Your task to perform on an android device: change your default location settings in chrome Image 0: 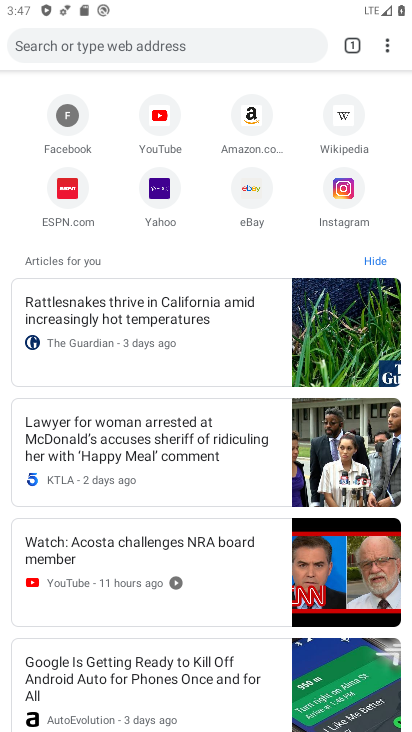
Step 0: click (376, 50)
Your task to perform on an android device: change your default location settings in chrome Image 1: 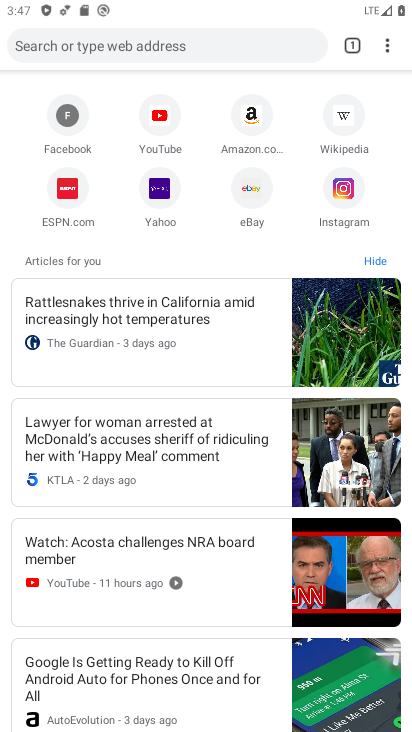
Step 1: click (376, 53)
Your task to perform on an android device: change your default location settings in chrome Image 2: 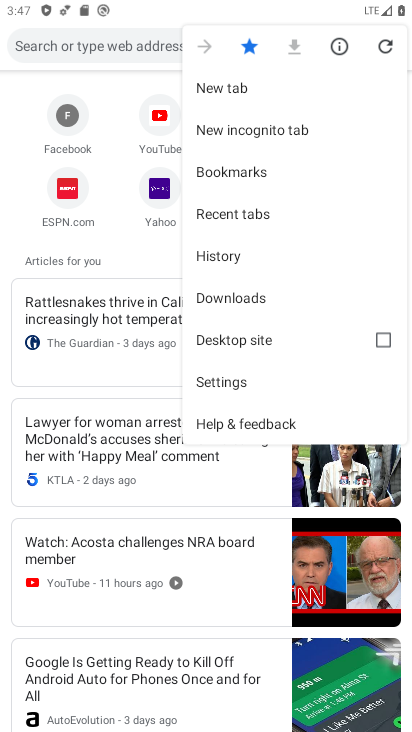
Step 2: click (251, 377)
Your task to perform on an android device: change your default location settings in chrome Image 3: 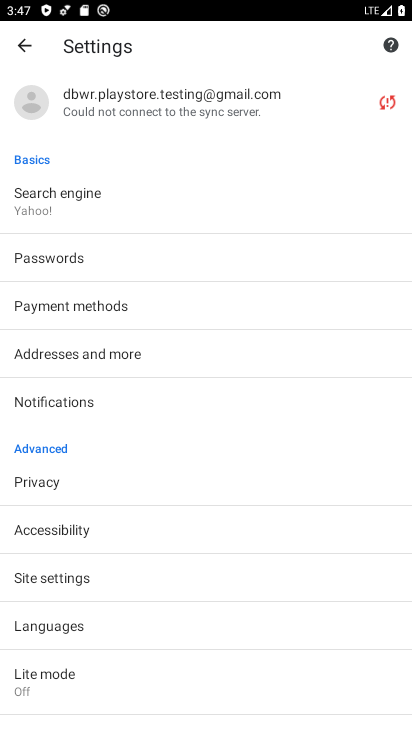
Step 3: click (68, 579)
Your task to perform on an android device: change your default location settings in chrome Image 4: 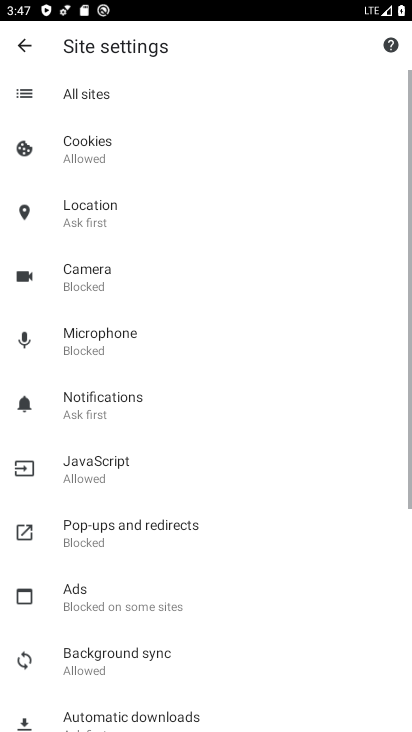
Step 4: click (123, 203)
Your task to perform on an android device: change your default location settings in chrome Image 5: 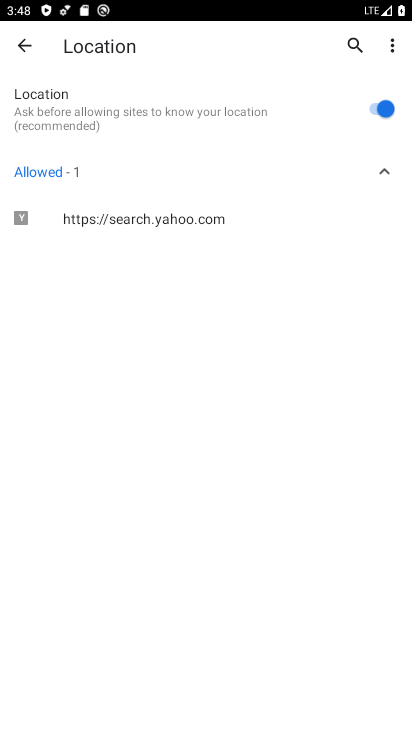
Step 5: click (380, 107)
Your task to perform on an android device: change your default location settings in chrome Image 6: 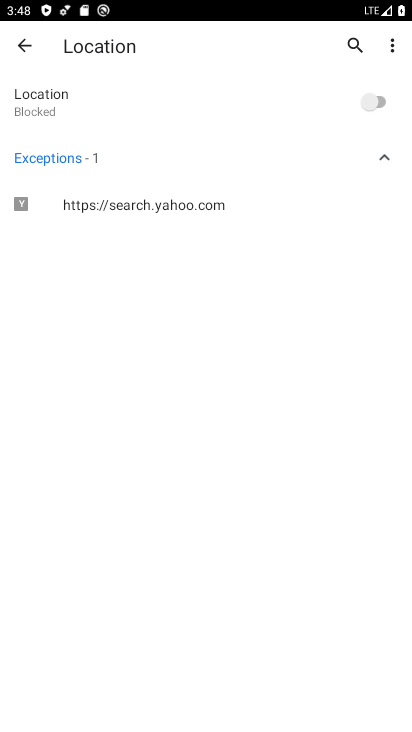
Step 6: task complete